Your task to perform on an android device: turn on priority inbox in the gmail app Image 0: 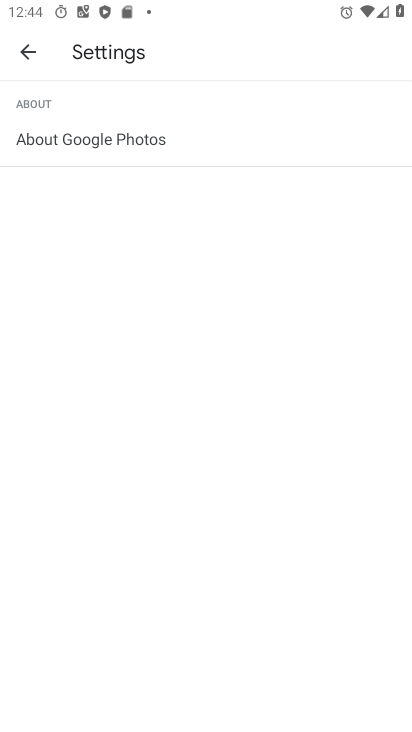
Step 0: press home button
Your task to perform on an android device: turn on priority inbox in the gmail app Image 1: 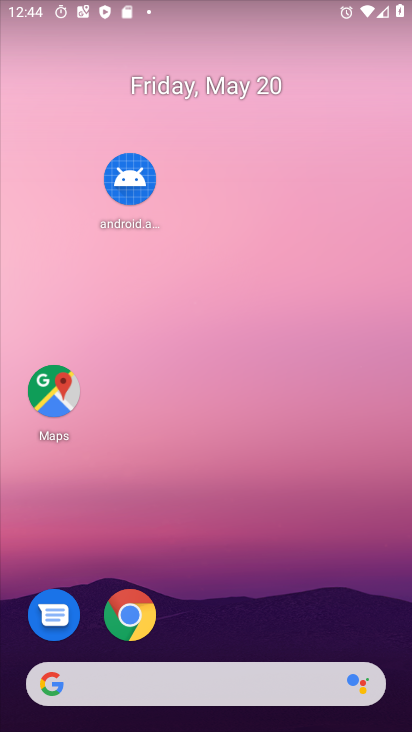
Step 1: drag from (297, 543) to (249, 260)
Your task to perform on an android device: turn on priority inbox in the gmail app Image 2: 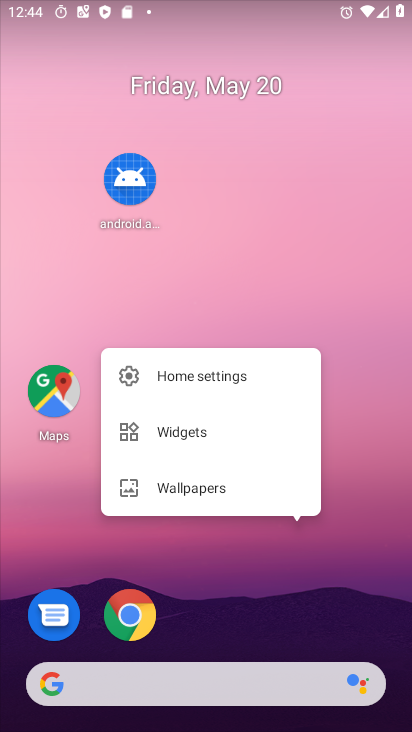
Step 2: drag from (281, 627) to (300, 301)
Your task to perform on an android device: turn on priority inbox in the gmail app Image 3: 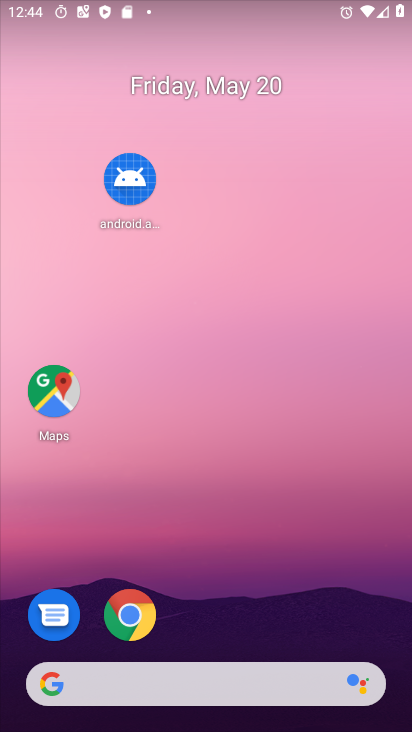
Step 3: drag from (339, 635) to (354, 247)
Your task to perform on an android device: turn on priority inbox in the gmail app Image 4: 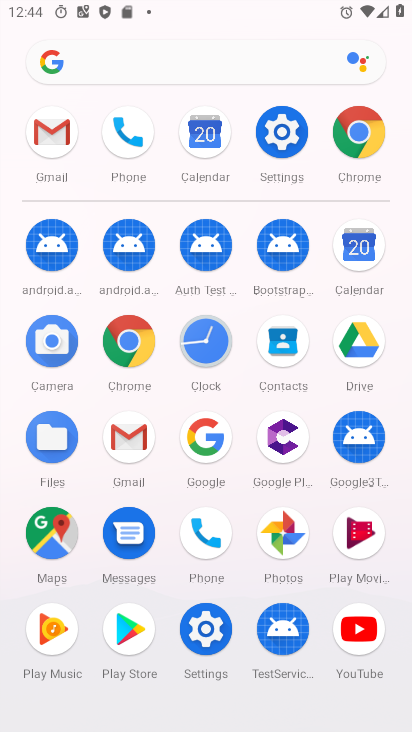
Step 4: click (130, 449)
Your task to perform on an android device: turn on priority inbox in the gmail app Image 5: 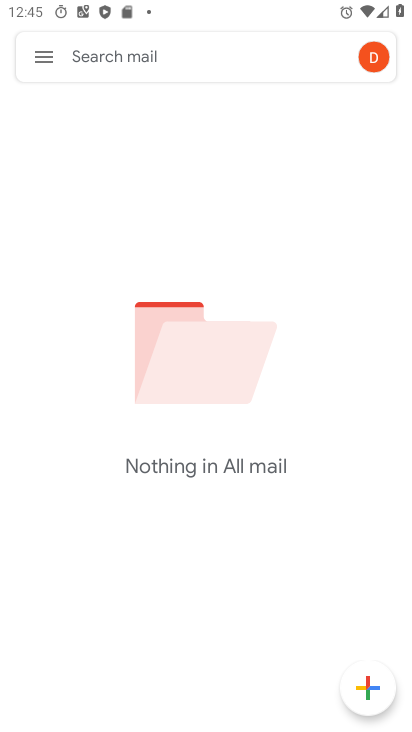
Step 5: click (33, 53)
Your task to perform on an android device: turn on priority inbox in the gmail app Image 6: 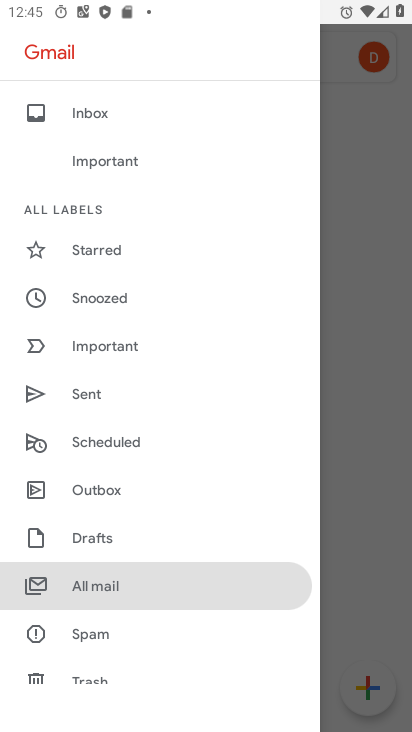
Step 6: drag from (145, 597) to (174, 91)
Your task to perform on an android device: turn on priority inbox in the gmail app Image 7: 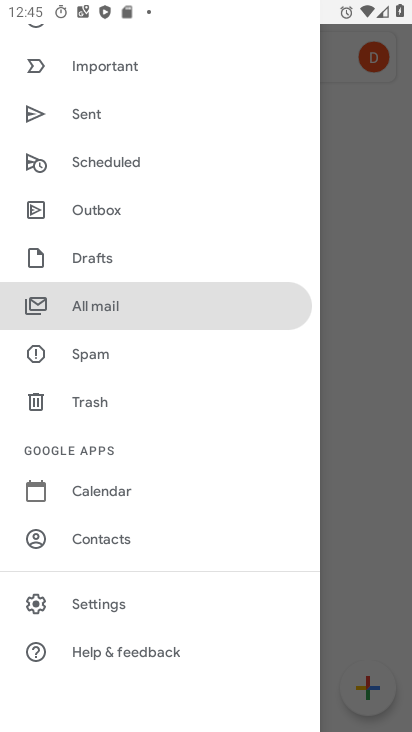
Step 7: click (128, 599)
Your task to perform on an android device: turn on priority inbox in the gmail app Image 8: 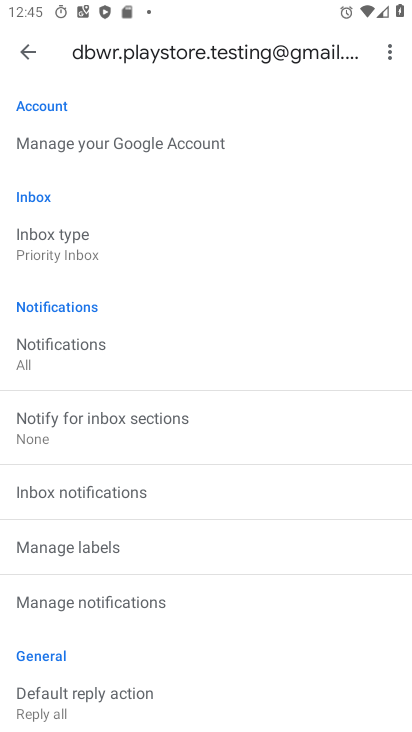
Step 8: task complete